Your task to perform on an android device: turn on sleep mode Image 0: 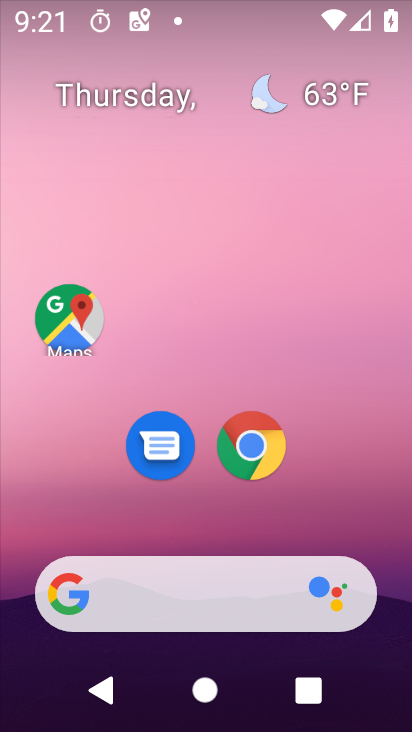
Step 0: drag from (281, 440) to (275, 216)
Your task to perform on an android device: turn on sleep mode Image 1: 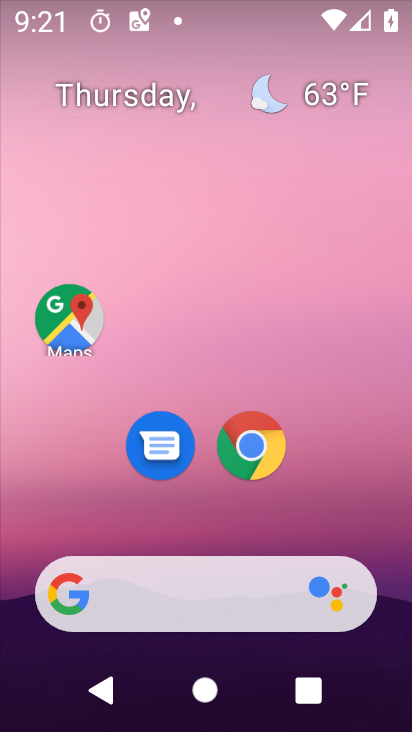
Step 1: drag from (137, 538) to (211, 121)
Your task to perform on an android device: turn on sleep mode Image 2: 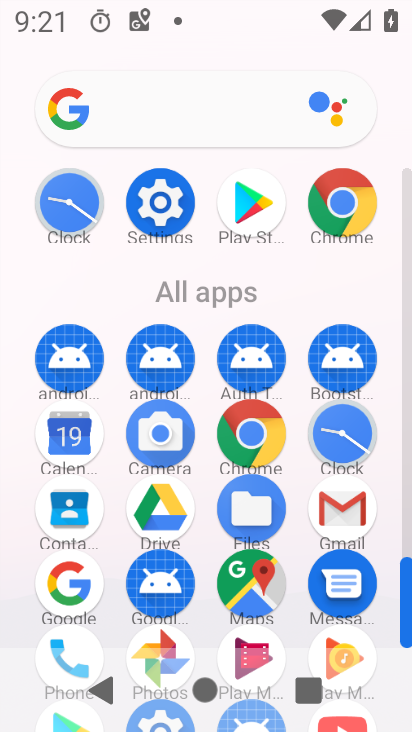
Step 2: click (177, 204)
Your task to perform on an android device: turn on sleep mode Image 3: 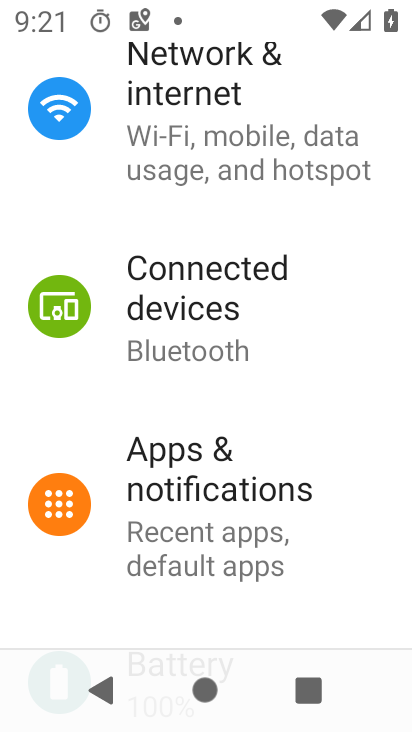
Step 3: task complete